Your task to perform on an android device: Do I have any events this weekend? Image 0: 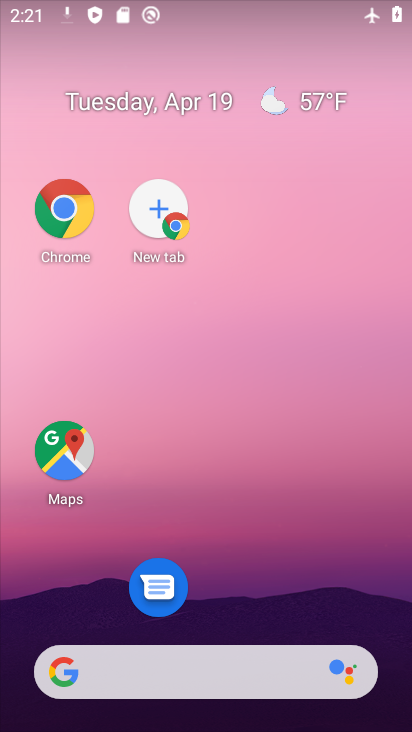
Step 0: drag from (245, 438) to (232, 41)
Your task to perform on an android device: Do I have any events this weekend? Image 1: 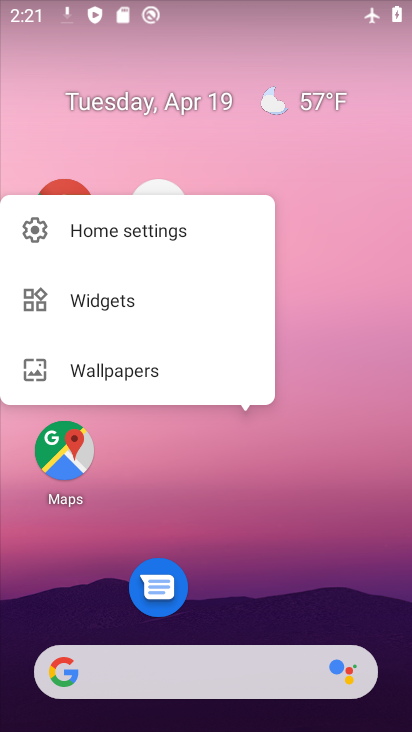
Step 1: drag from (306, 427) to (315, 257)
Your task to perform on an android device: Do I have any events this weekend? Image 2: 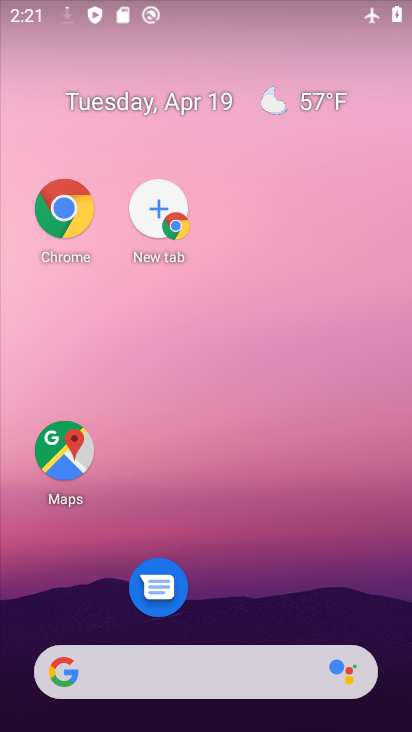
Step 2: drag from (282, 574) to (310, 197)
Your task to perform on an android device: Do I have any events this weekend? Image 3: 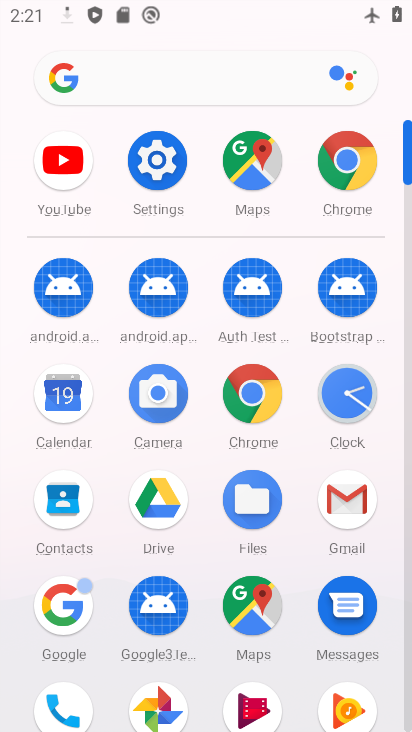
Step 3: click (65, 396)
Your task to perform on an android device: Do I have any events this weekend? Image 4: 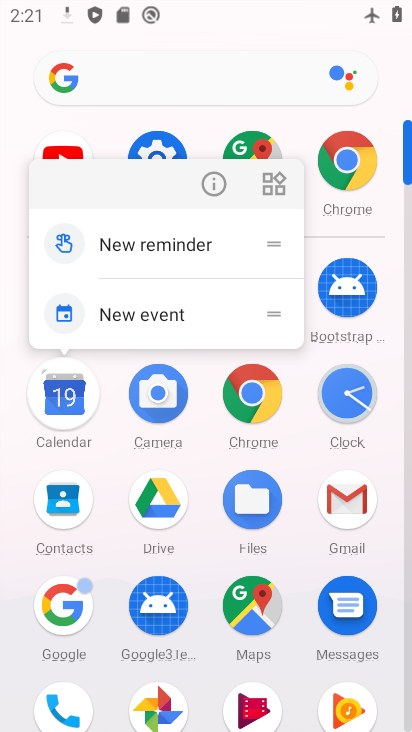
Step 4: click (65, 396)
Your task to perform on an android device: Do I have any events this weekend? Image 5: 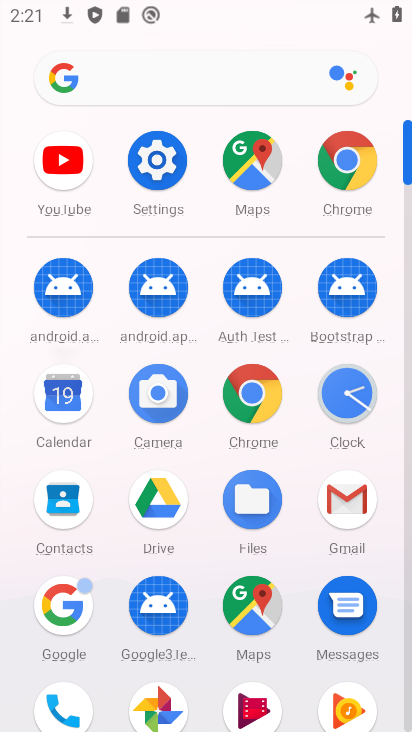
Step 5: click (65, 396)
Your task to perform on an android device: Do I have any events this weekend? Image 6: 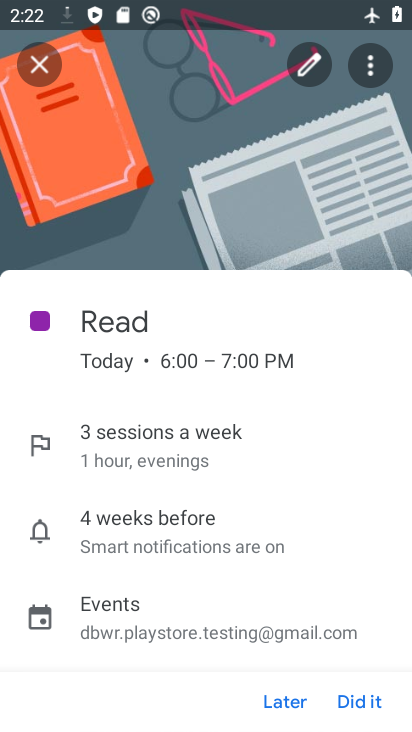
Step 6: click (178, 632)
Your task to perform on an android device: Do I have any events this weekend? Image 7: 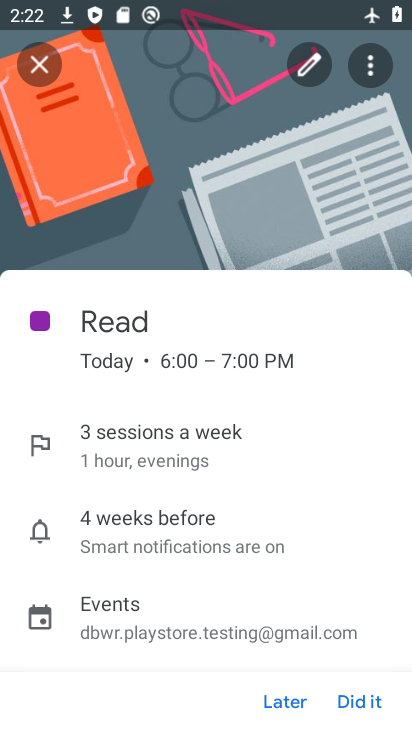
Step 7: drag from (270, 569) to (218, 270)
Your task to perform on an android device: Do I have any events this weekend? Image 8: 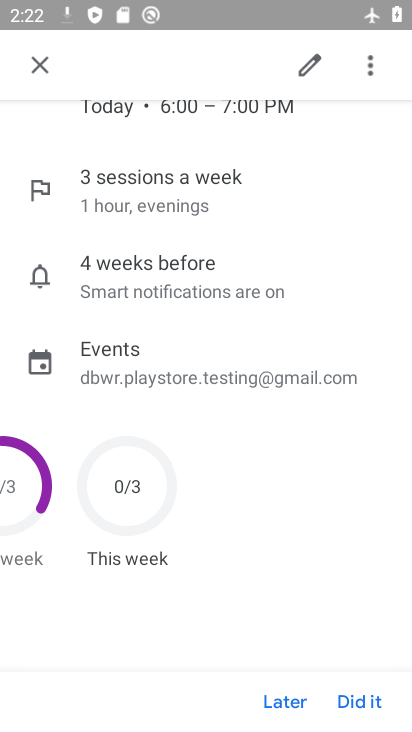
Step 8: click (124, 504)
Your task to perform on an android device: Do I have any events this weekend? Image 9: 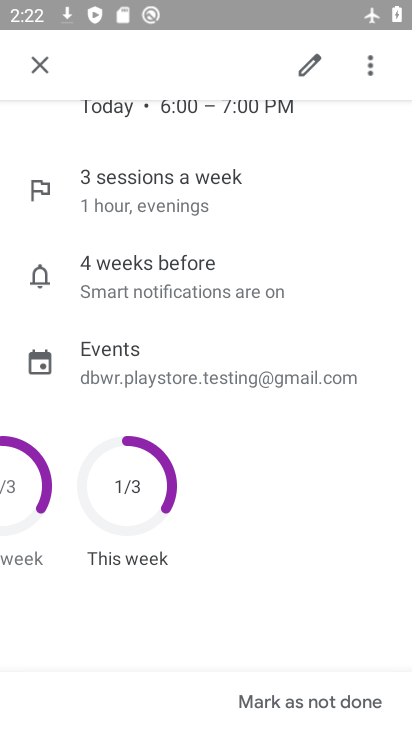
Step 9: click (28, 64)
Your task to perform on an android device: Do I have any events this weekend? Image 10: 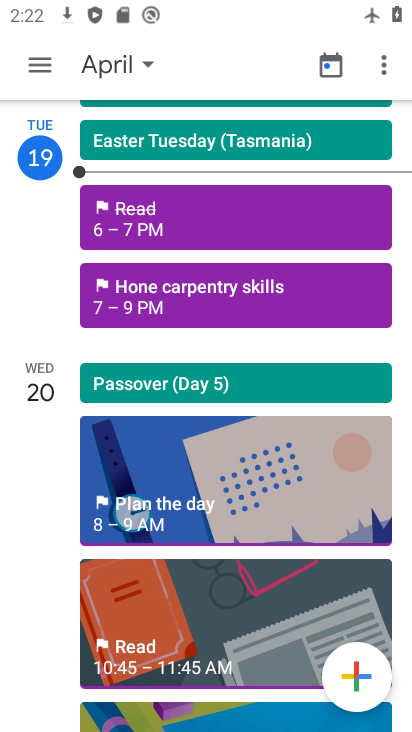
Step 10: click (38, 63)
Your task to perform on an android device: Do I have any events this weekend? Image 11: 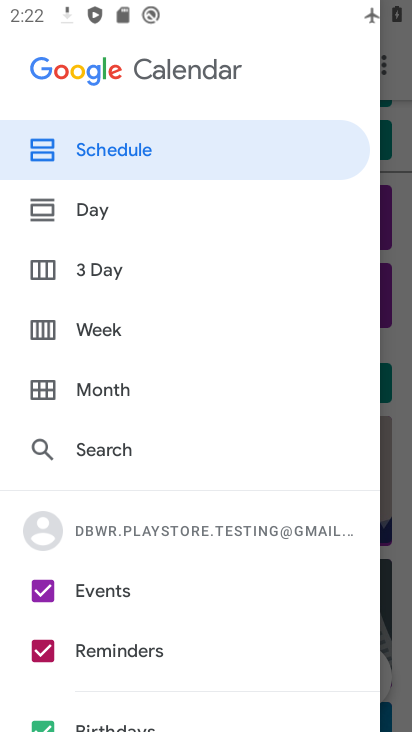
Step 11: click (117, 586)
Your task to perform on an android device: Do I have any events this weekend? Image 12: 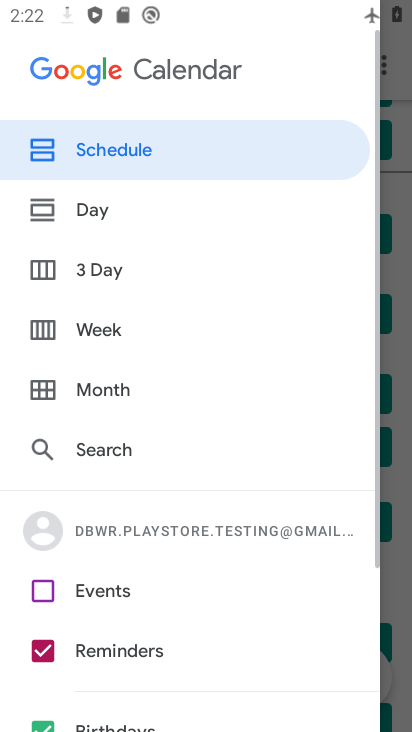
Step 12: click (57, 592)
Your task to perform on an android device: Do I have any events this weekend? Image 13: 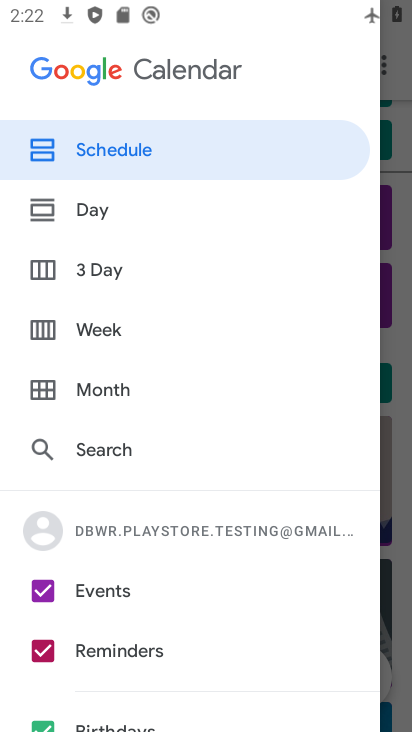
Step 13: task complete